Your task to perform on an android device: turn off airplane mode Image 0: 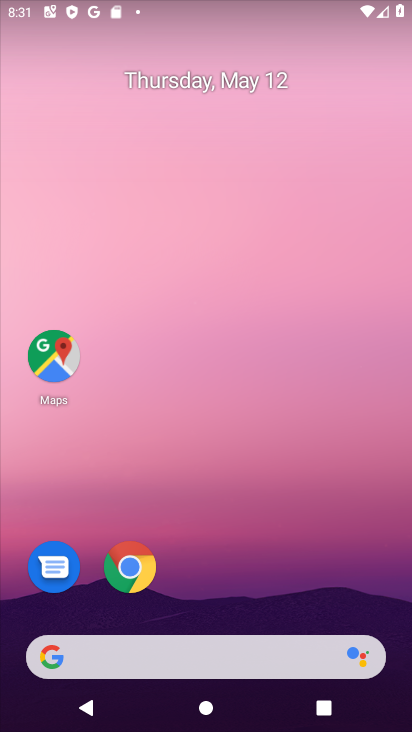
Step 0: drag from (287, 572) to (393, 93)
Your task to perform on an android device: turn off airplane mode Image 1: 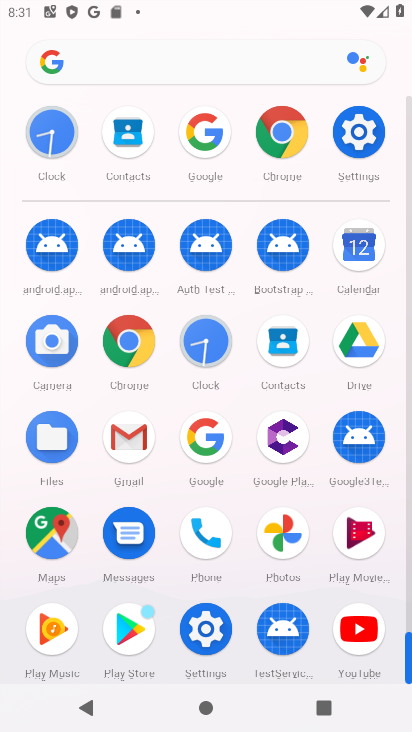
Step 1: click (369, 152)
Your task to perform on an android device: turn off airplane mode Image 2: 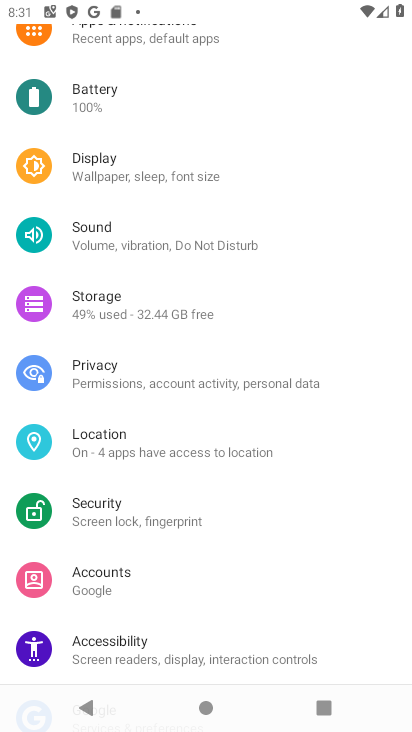
Step 2: drag from (144, 205) to (171, 524)
Your task to perform on an android device: turn off airplane mode Image 3: 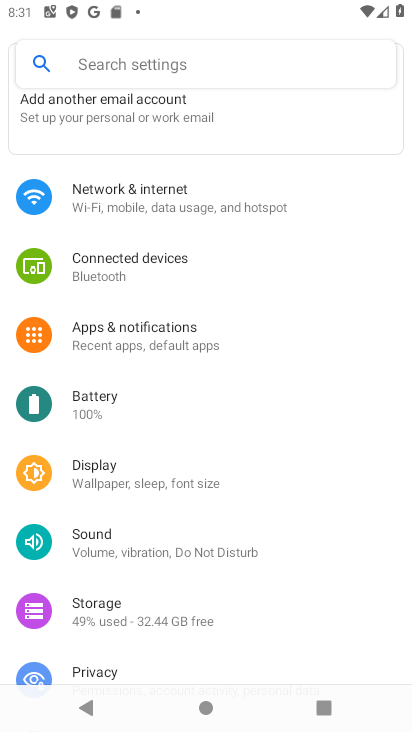
Step 3: click (171, 204)
Your task to perform on an android device: turn off airplane mode Image 4: 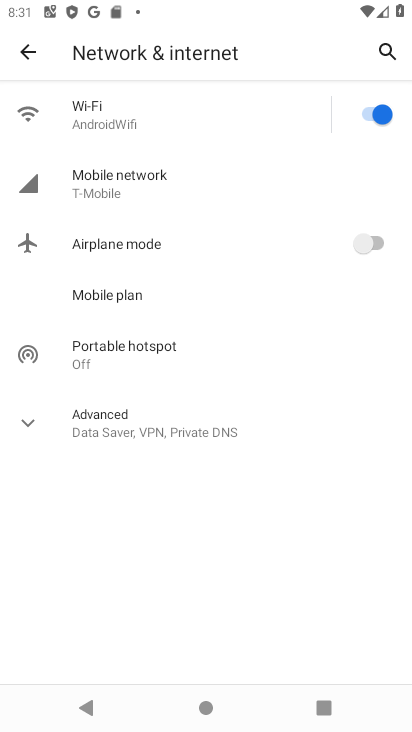
Step 4: task complete